Your task to perform on an android device: see tabs open on other devices in the chrome app Image 0: 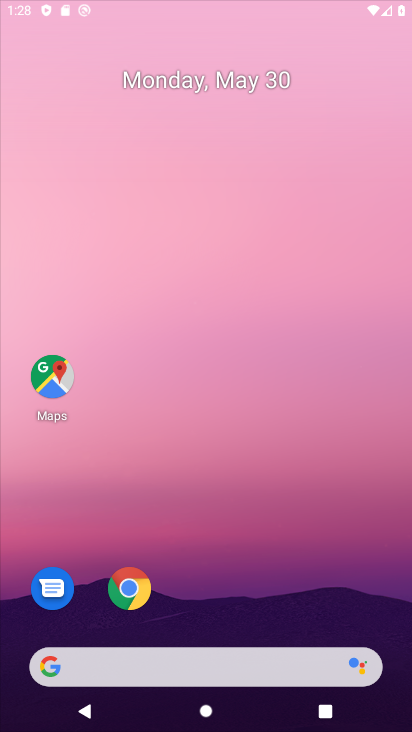
Step 0: drag from (269, 519) to (150, 15)
Your task to perform on an android device: see tabs open on other devices in the chrome app Image 1: 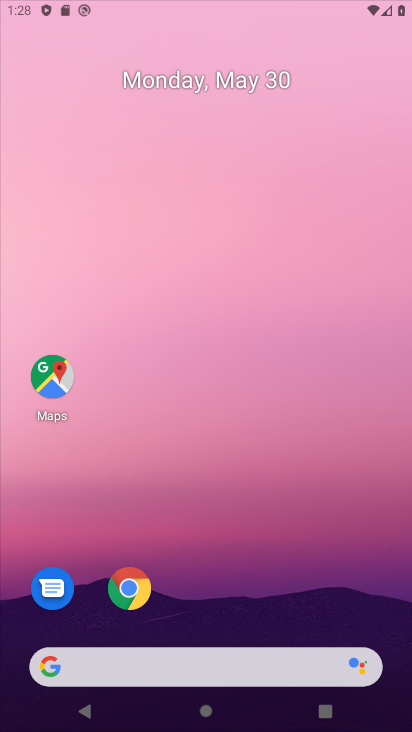
Step 1: click (139, 589)
Your task to perform on an android device: see tabs open on other devices in the chrome app Image 2: 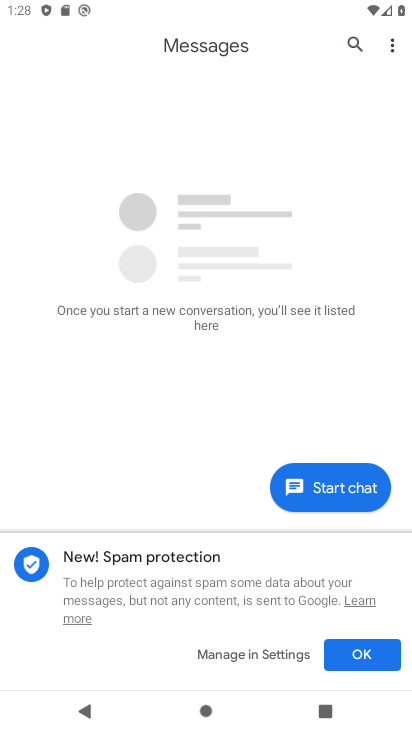
Step 2: press home button
Your task to perform on an android device: see tabs open on other devices in the chrome app Image 3: 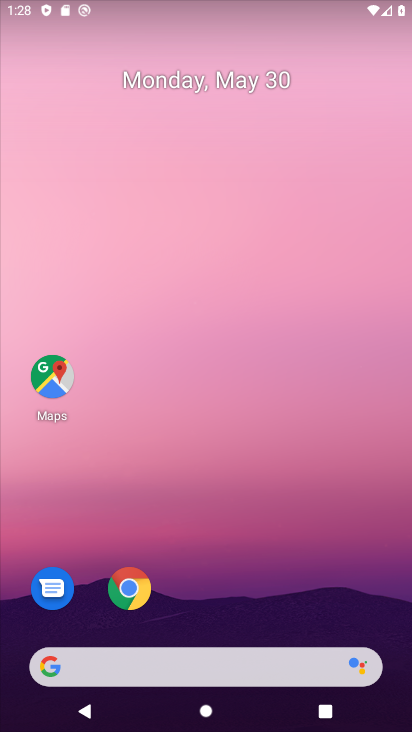
Step 3: click (122, 602)
Your task to perform on an android device: see tabs open on other devices in the chrome app Image 4: 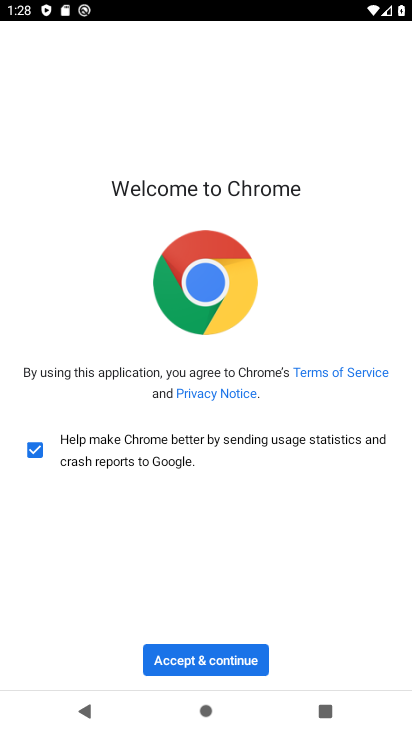
Step 4: click (240, 650)
Your task to perform on an android device: see tabs open on other devices in the chrome app Image 5: 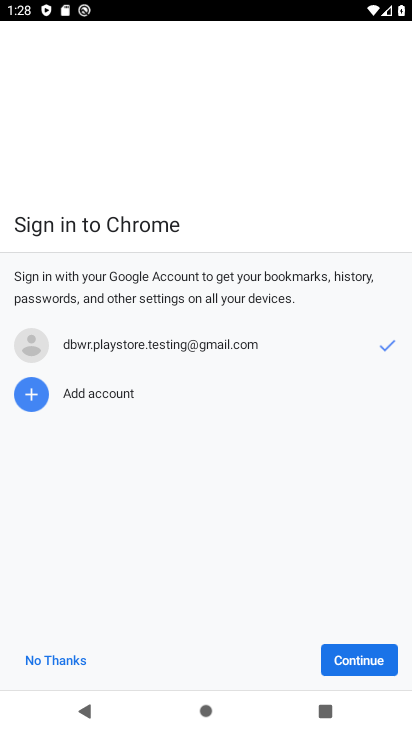
Step 5: click (358, 668)
Your task to perform on an android device: see tabs open on other devices in the chrome app Image 6: 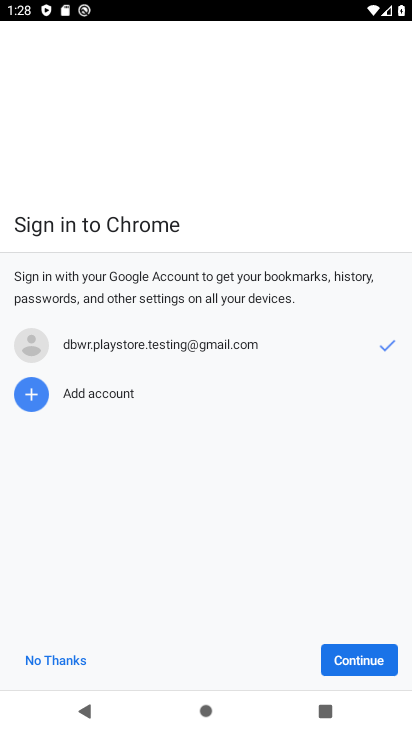
Step 6: click (359, 663)
Your task to perform on an android device: see tabs open on other devices in the chrome app Image 7: 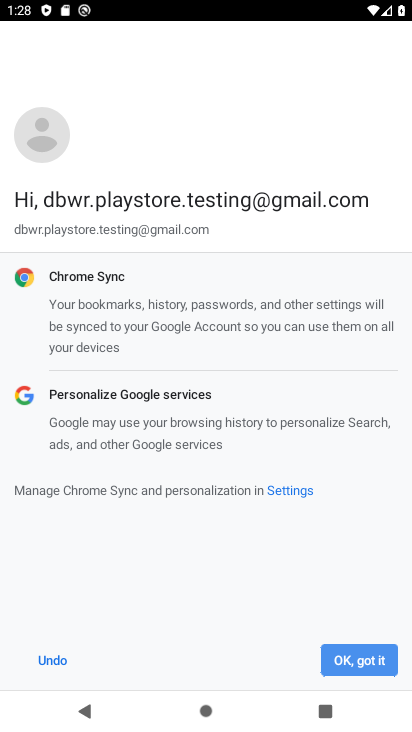
Step 7: click (359, 663)
Your task to perform on an android device: see tabs open on other devices in the chrome app Image 8: 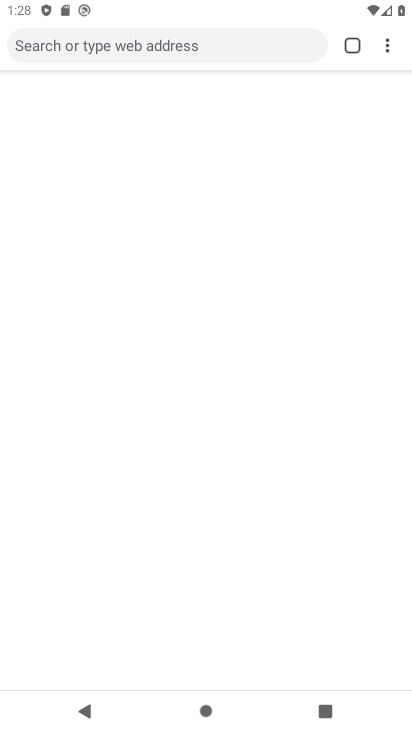
Step 8: click (387, 45)
Your task to perform on an android device: see tabs open on other devices in the chrome app Image 9: 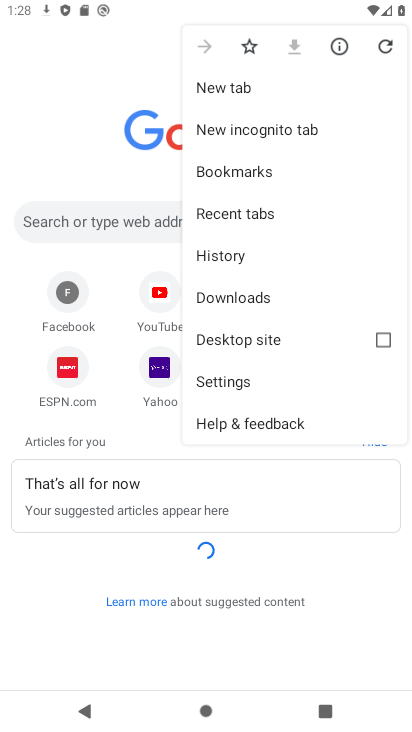
Step 9: click (278, 208)
Your task to perform on an android device: see tabs open on other devices in the chrome app Image 10: 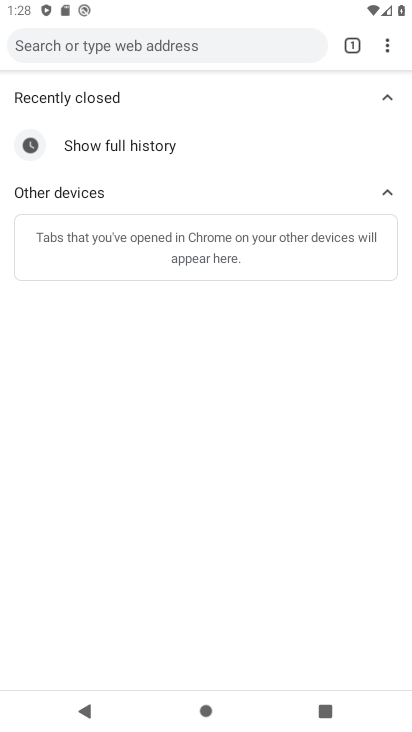
Step 10: task complete